Your task to perform on an android device: open app "Google Calendar" (install if not already installed) Image 0: 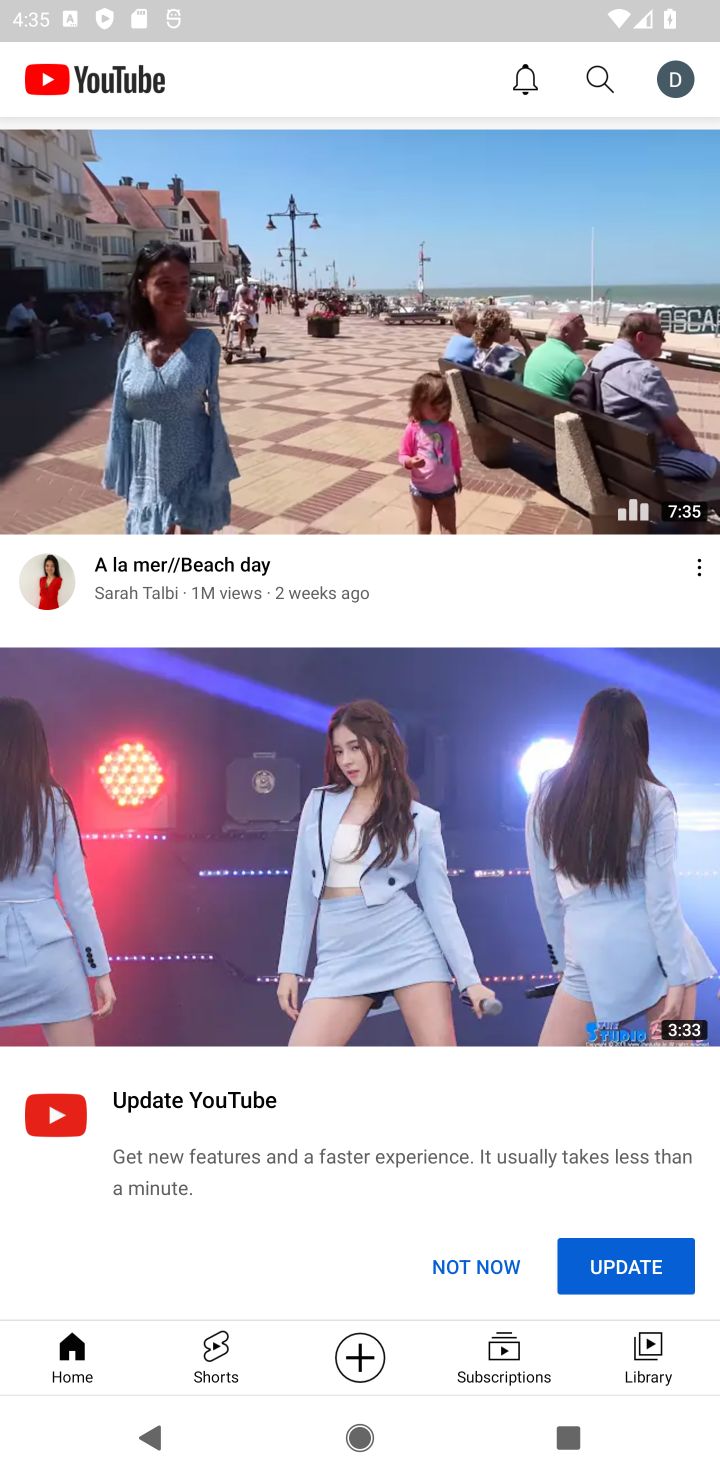
Step 0: press home button
Your task to perform on an android device: open app "Google Calendar" (install if not already installed) Image 1: 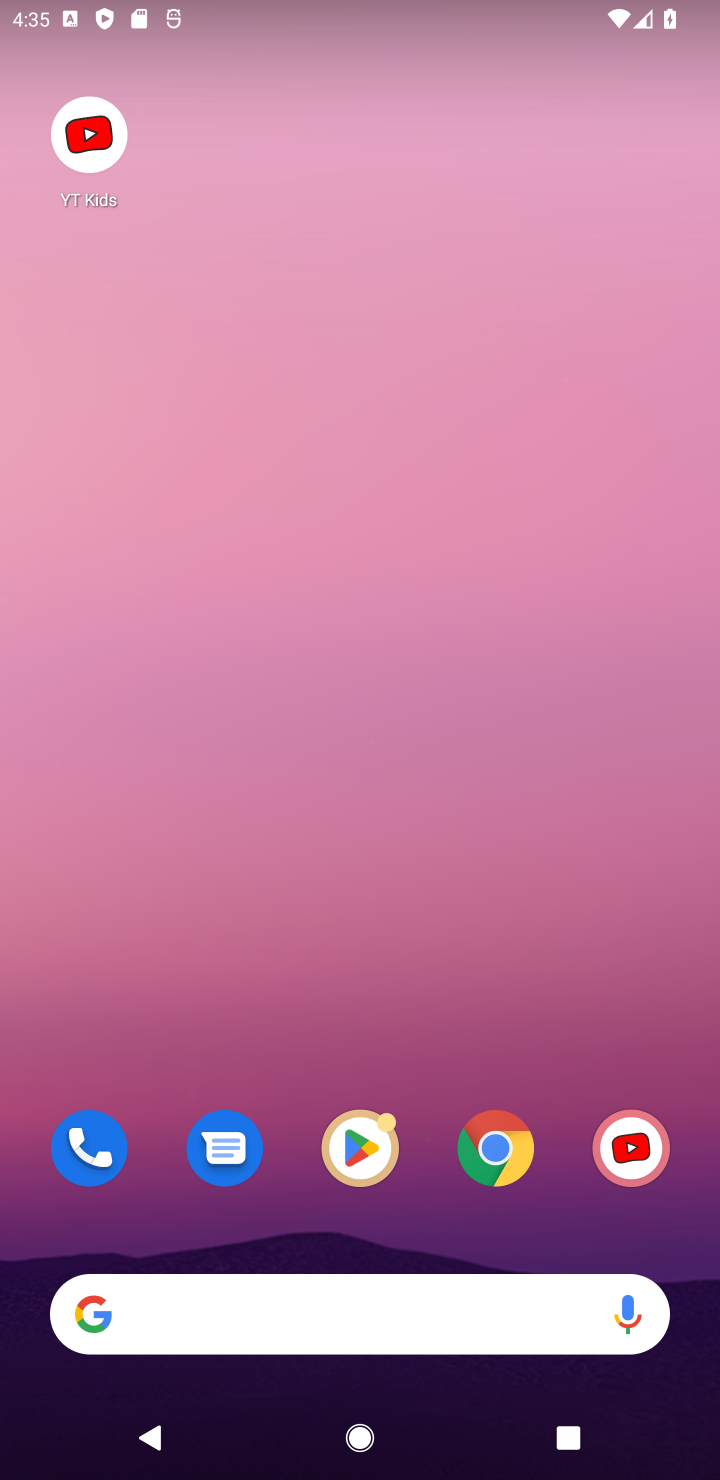
Step 1: drag from (393, 1217) to (391, 113)
Your task to perform on an android device: open app "Google Calendar" (install if not already installed) Image 2: 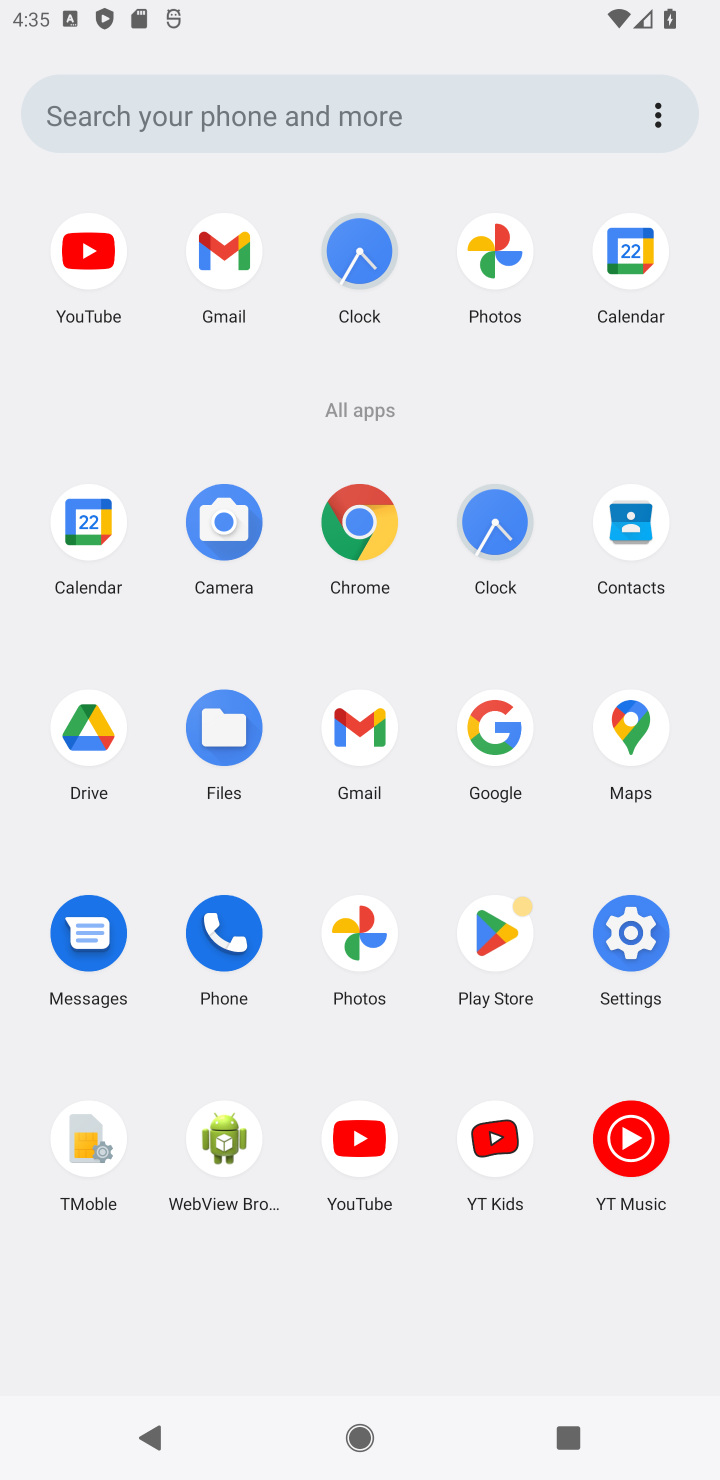
Step 2: click (629, 250)
Your task to perform on an android device: open app "Google Calendar" (install if not already installed) Image 3: 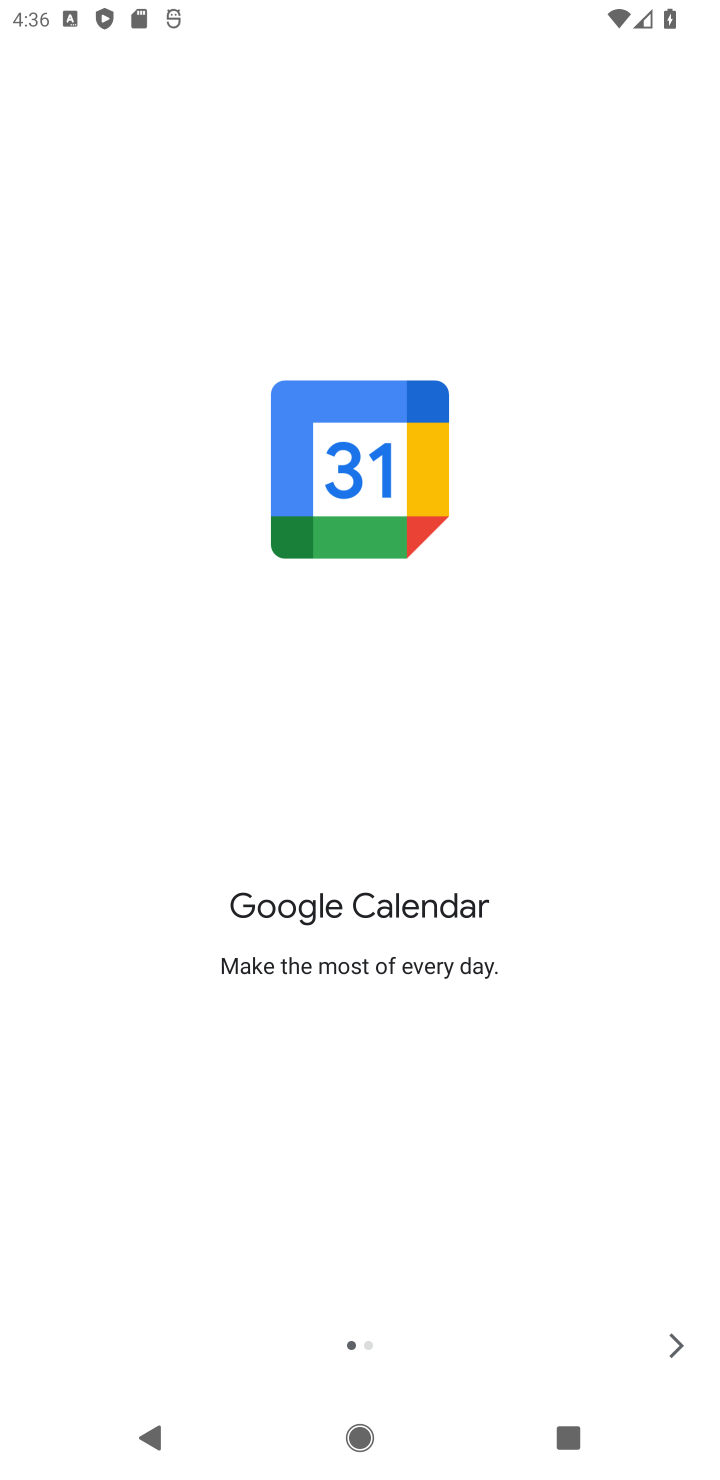
Step 3: click (674, 1341)
Your task to perform on an android device: open app "Google Calendar" (install if not already installed) Image 4: 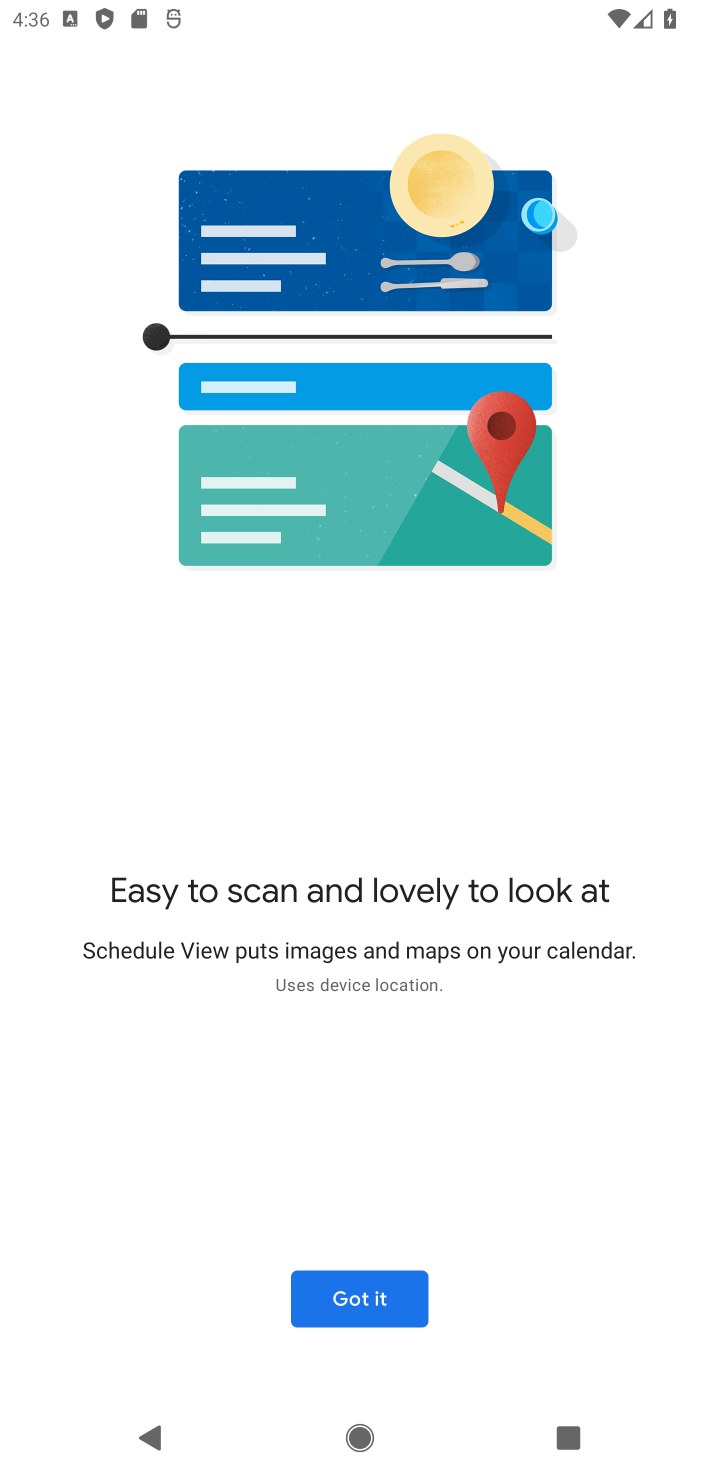
Step 4: click (375, 1295)
Your task to perform on an android device: open app "Google Calendar" (install if not already installed) Image 5: 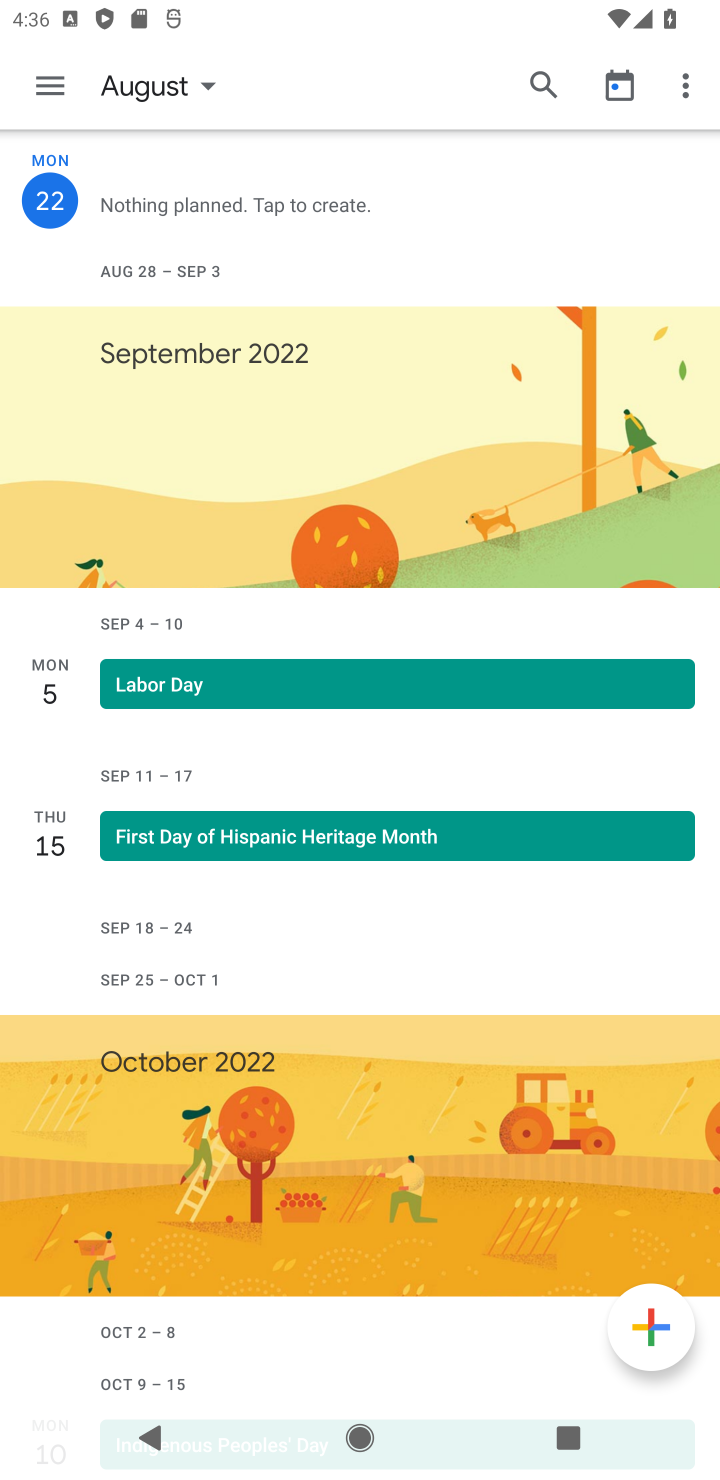
Step 5: task complete